Your task to perform on an android device: What is the recent news? Image 0: 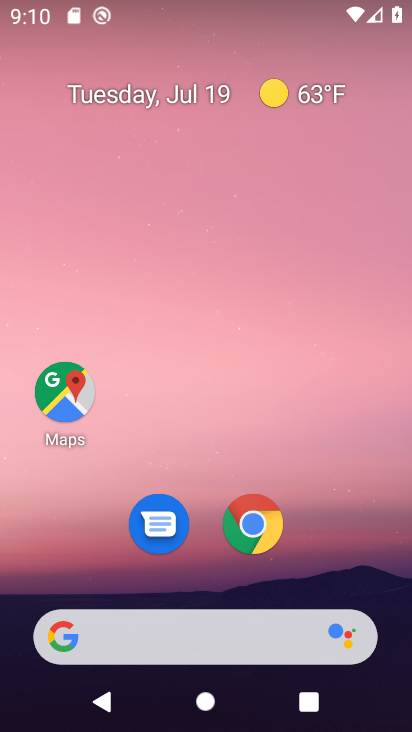
Step 0: click (173, 634)
Your task to perform on an android device: What is the recent news? Image 1: 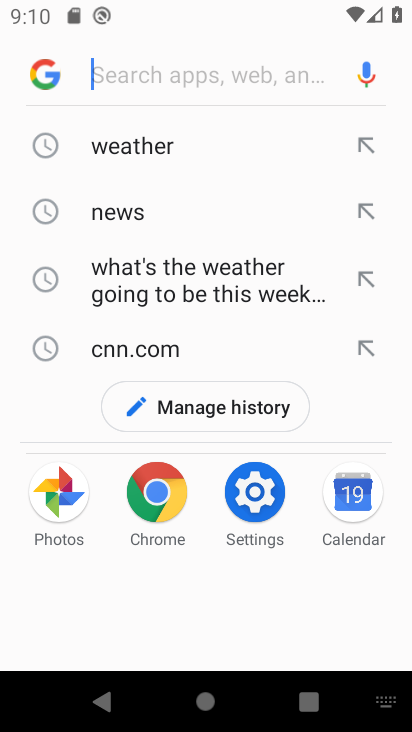
Step 1: click (121, 222)
Your task to perform on an android device: What is the recent news? Image 2: 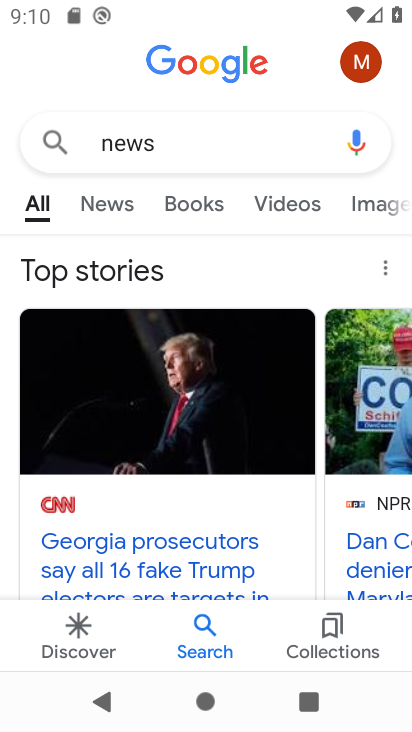
Step 2: click (116, 197)
Your task to perform on an android device: What is the recent news? Image 3: 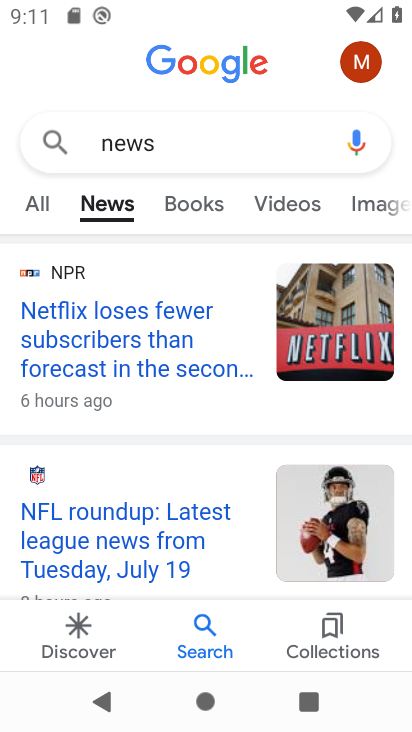
Step 3: task complete